Your task to perform on an android device: toggle improve location accuracy Image 0: 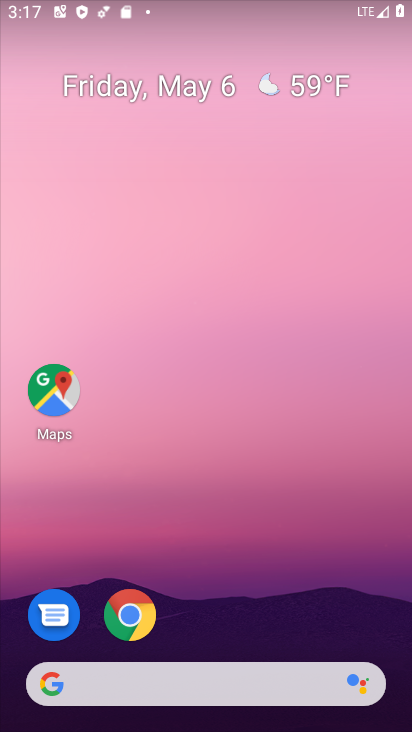
Step 0: drag from (273, 568) to (237, 209)
Your task to perform on an android device: toggle improve location accuracy Image 1: 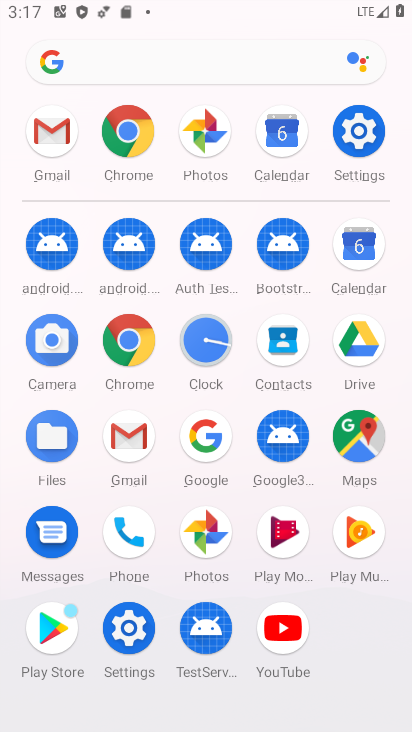
Step 1: click (362, 126)
Your task to perform on an android device: toggle improve location accuracy Image 2: 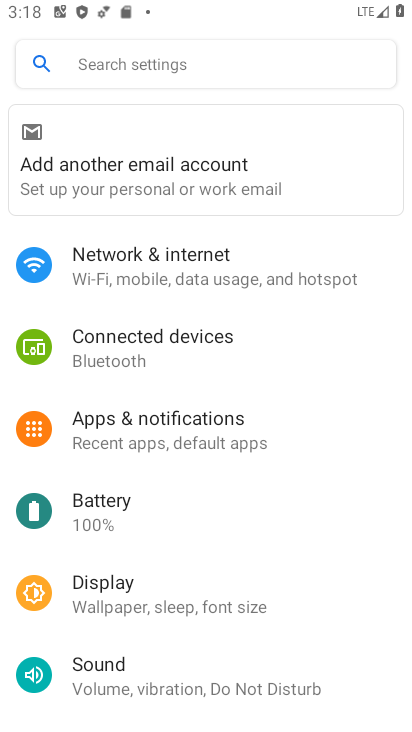
Step 2: drag from (172, 549) to (171, 268)
Your task to perform on an android device: toggle improve location accuracy Image 3: 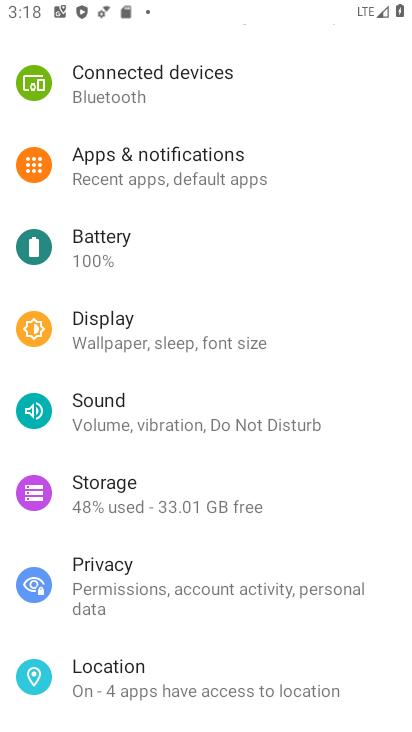
Step 3: click (163, 669)
Your task to perform on an android device: toggle improve location accuracy Image 4: 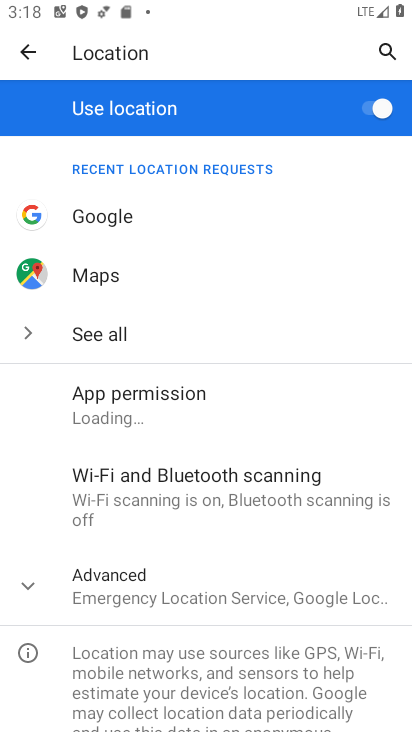
Step 4: click (168, 588)
Your task to perform on an android device: toggle improve location accuracy Image 5: 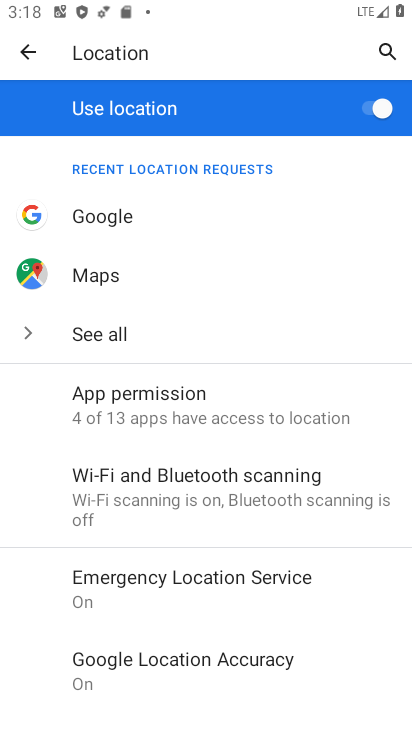
Step 5: click (231, 677)
Your task to perform on an android device: toggle improve location accuracy Image 6: 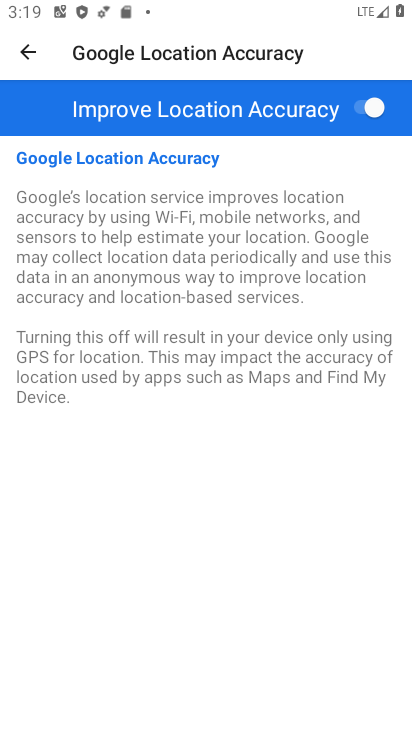
Step 6: task complete